Your task to perform on an android device: Open my contact list Image 0: 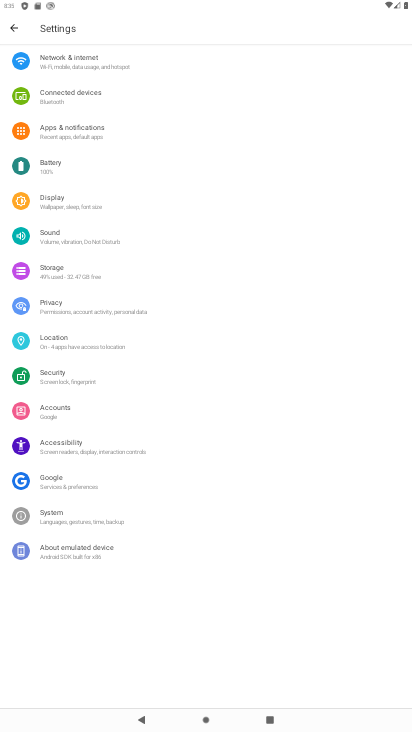
Step 0: press home button
Your task to perform on an android device: Open my contact list Image 1: 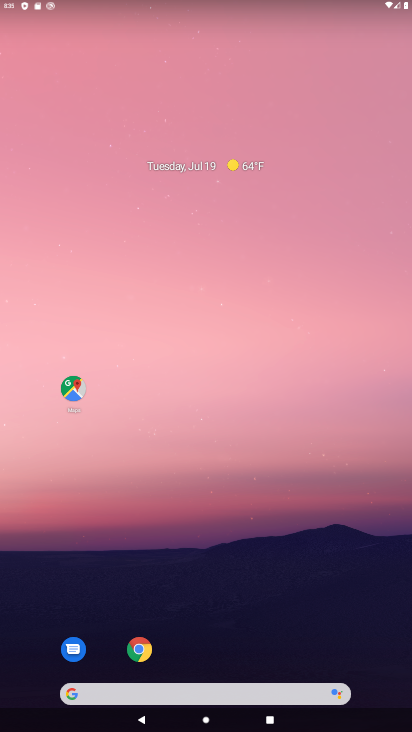
Step 1: drag from (208, 646) to (192, 119)
Your task to perform on an android device: Open my contact list Image 2: 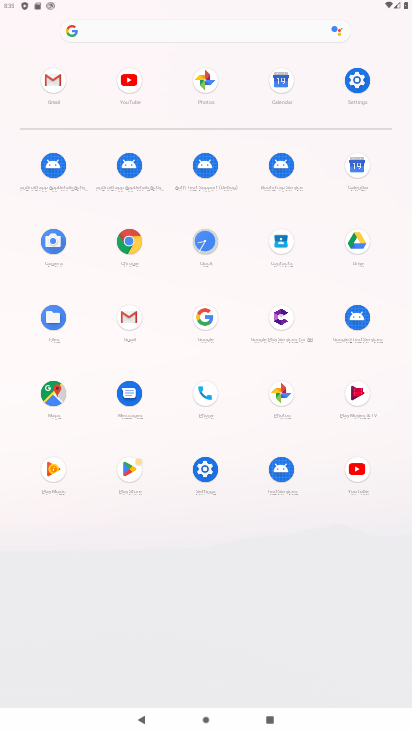
Step 2: click (283, 231)
Your task to perform on an android device: Open my contact list Image 3: 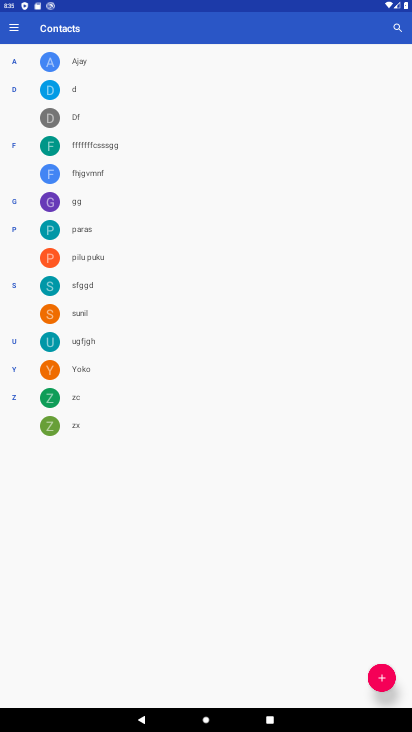
Step 3: task complete